Your task to perform on an android device: Install the Reddit app Image 0: 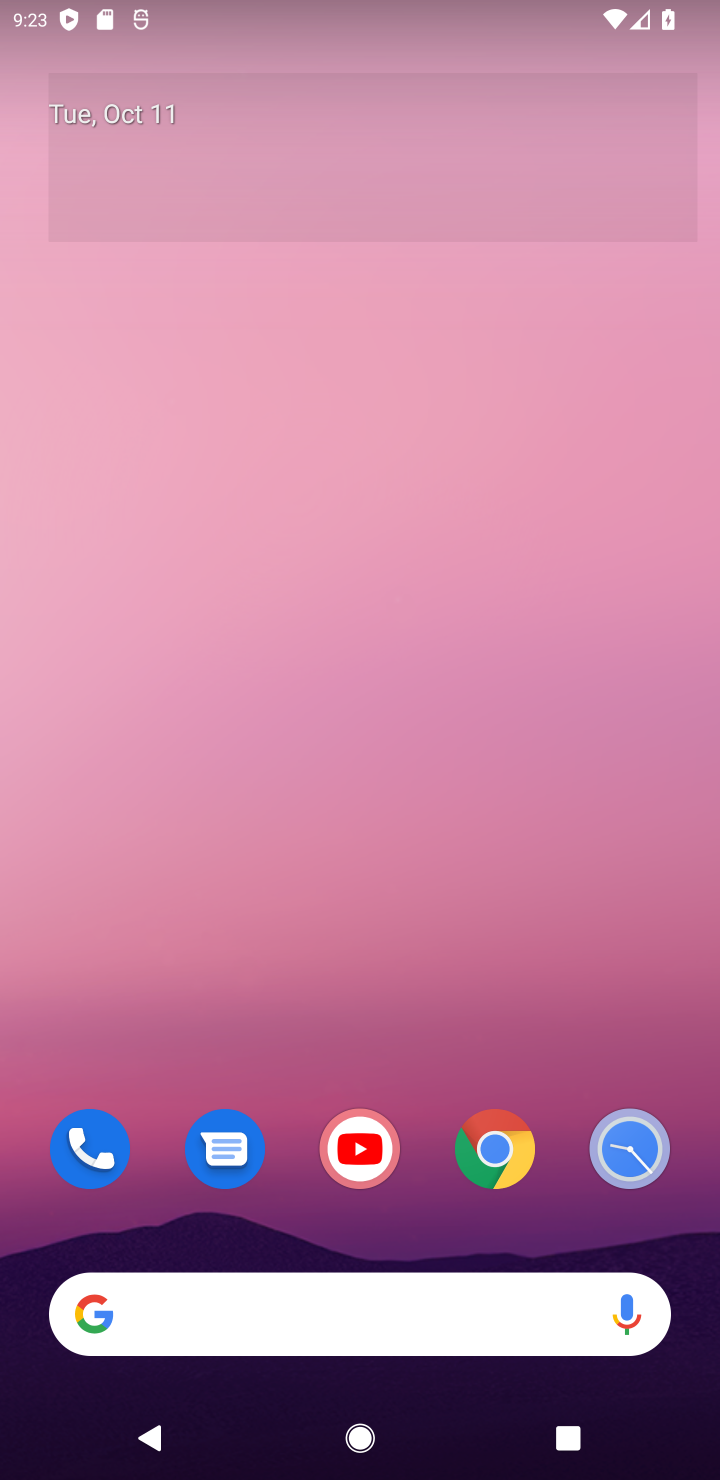
Step 0: drag from (388, 1304) to (562, 43)
Your task to perform on an android device: Install the Reddit app Image 1: 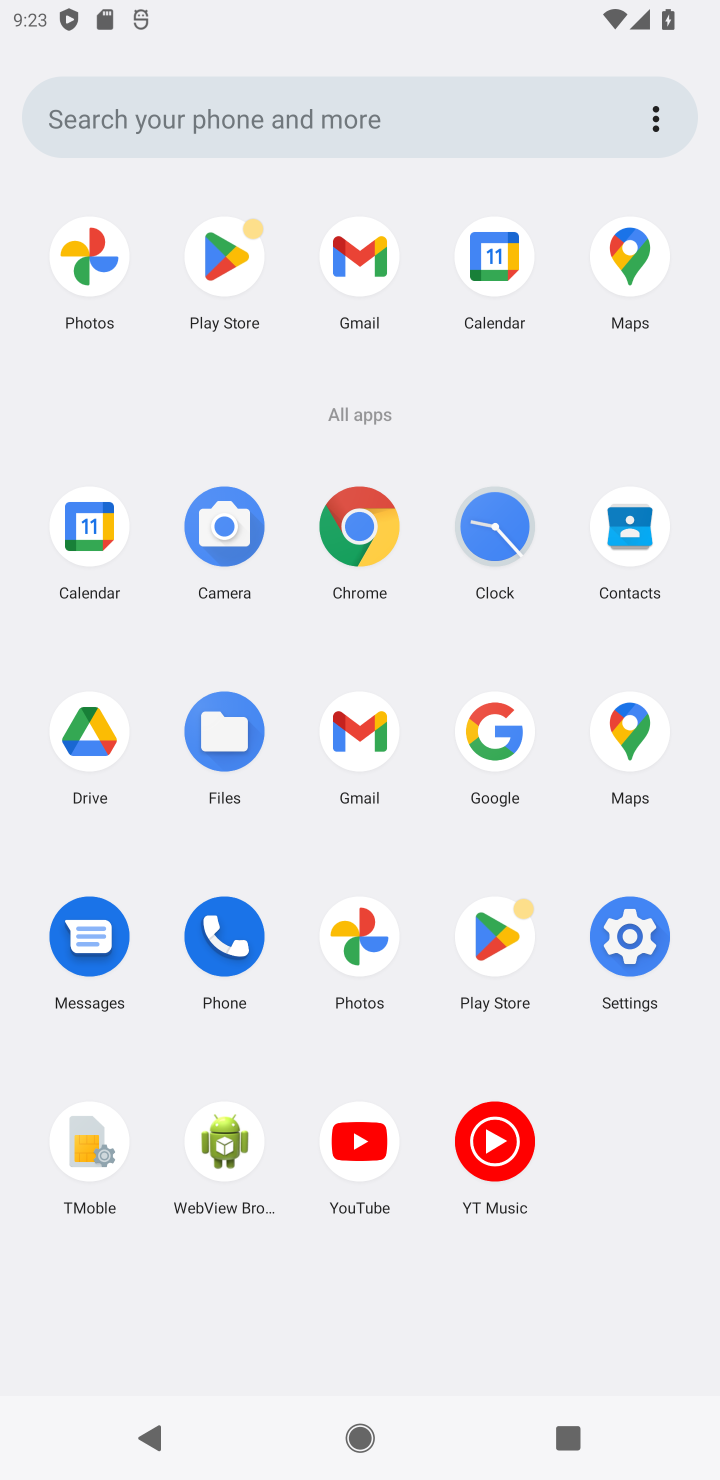
Step 1: click (494, 940)
Your task to perform on an android device: Install the Reddit app Image 2: 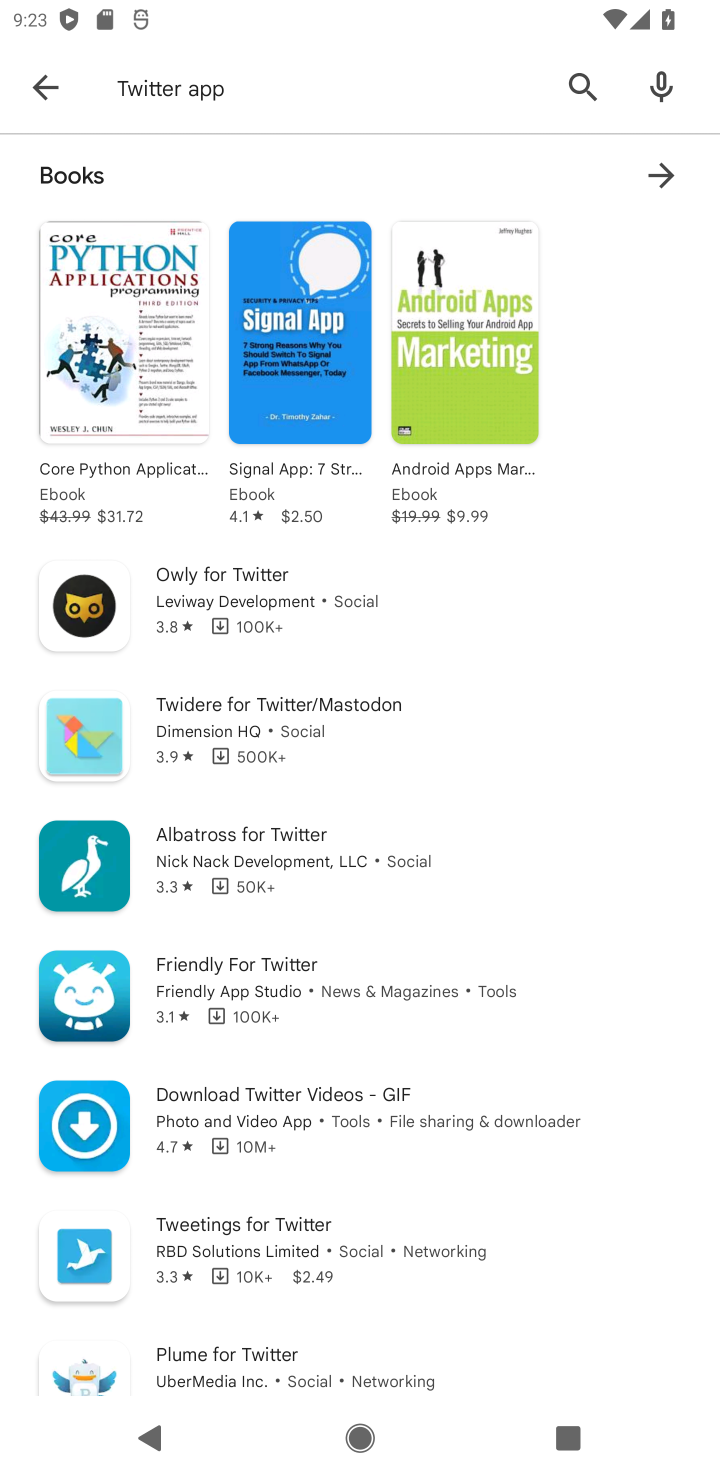
Step 2: press back button
Your task to perform on an android device: Install the Reddit app Image 3: 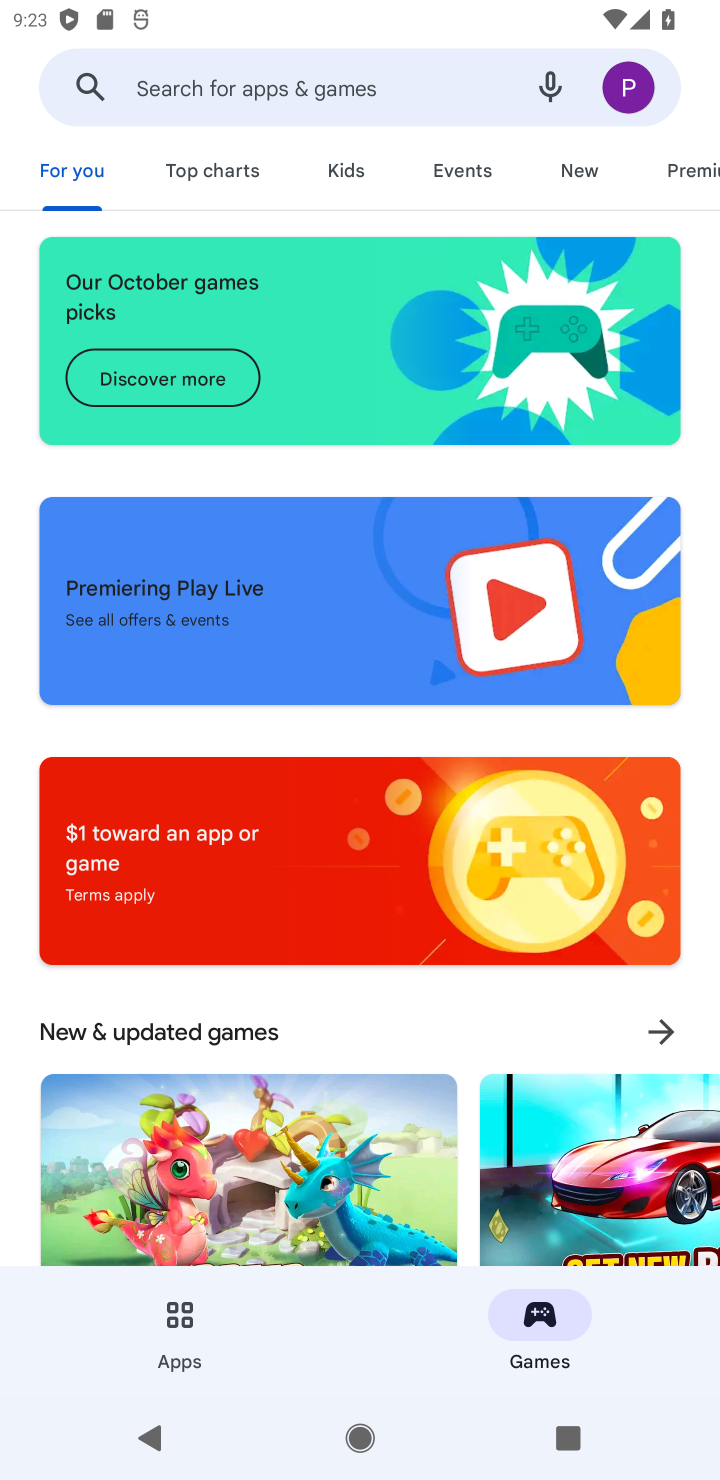
Step 3: click (415, 96)
Your task to perform on an android device: Install the Reddit app Image 4: 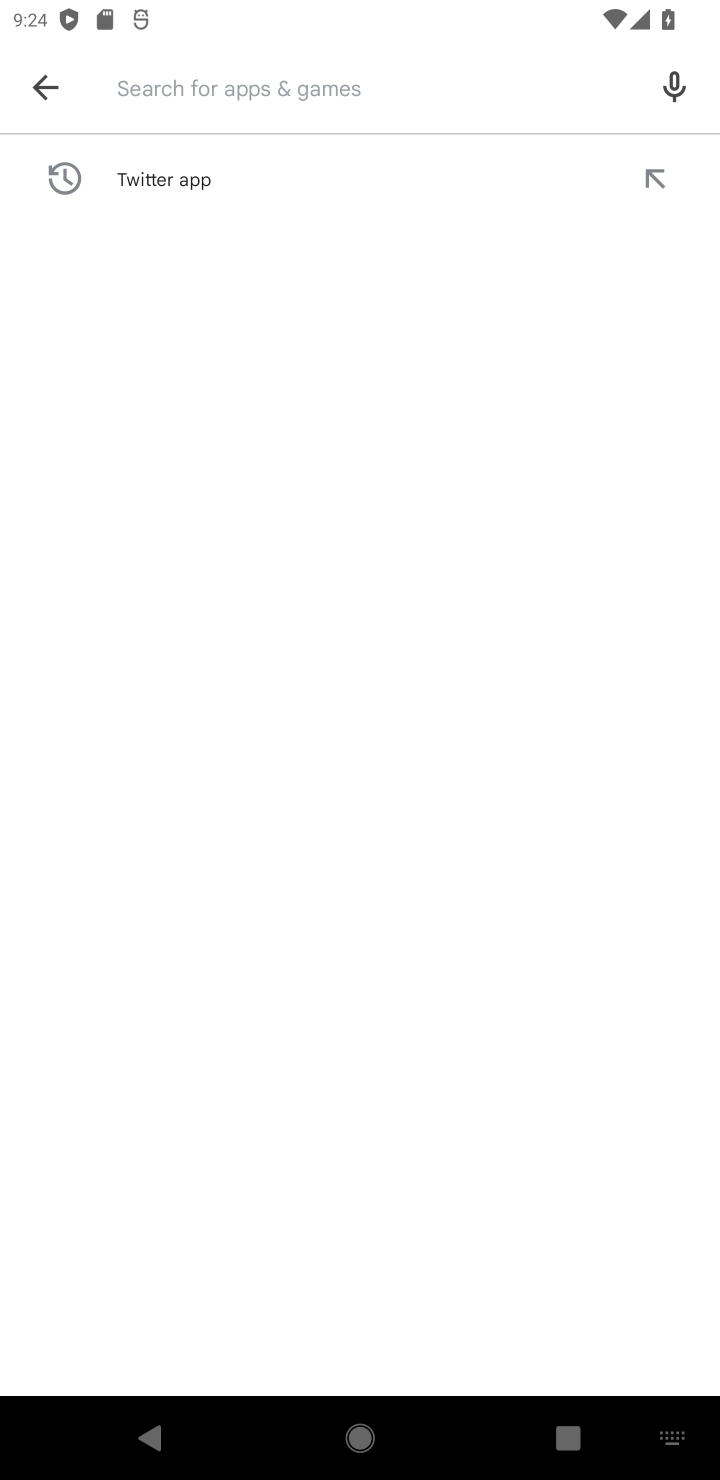
Step 4: type "Reddit app"
Your task to perform on an android device: Install the Reddit app Image 5: 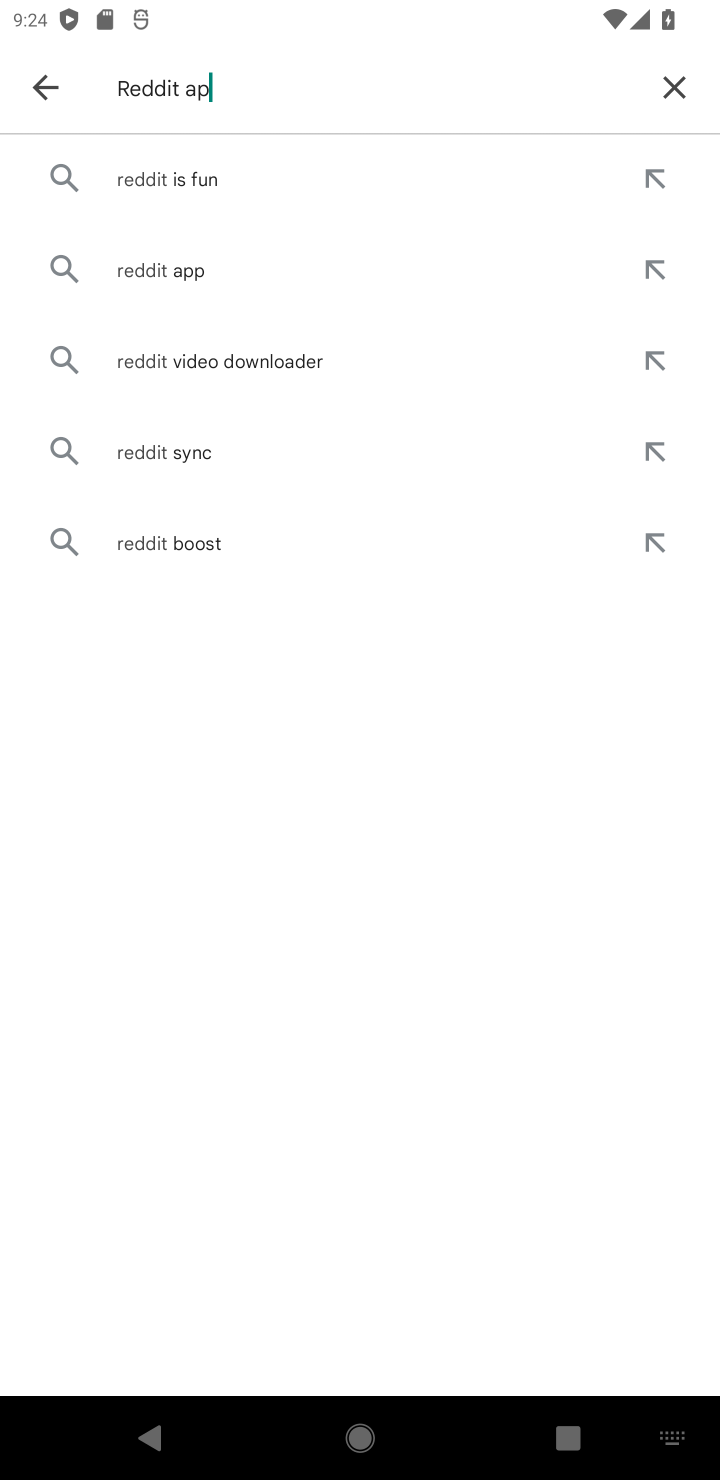
Step 5: press enter
Your task to perform on an android device: Install the Reddit app Image 6: 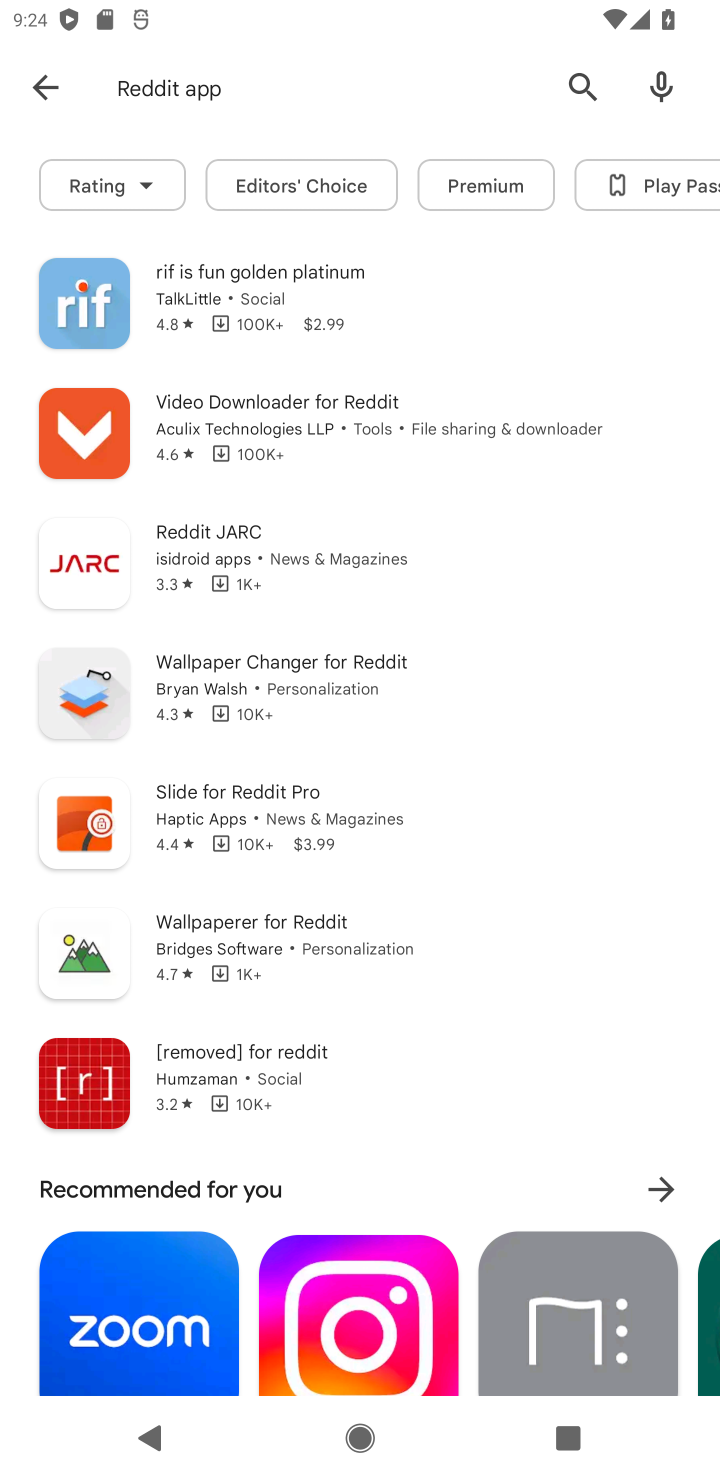
Step 6: task complete